Your task to perform on an android device: check android version Image 0: 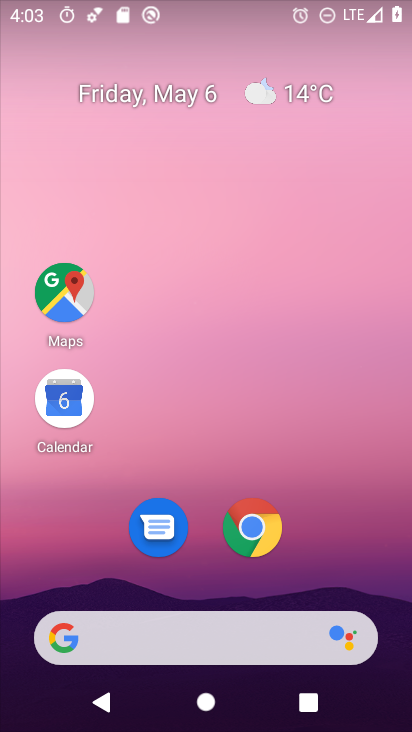
Step 0: drag from (349, 583) to (280, 35)
Your task to perform on an android device: check android version Image 1: 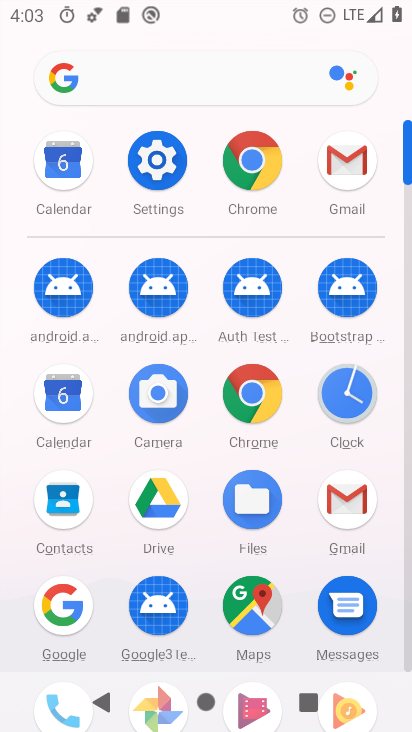
Step 1: click (149, 161)
Your task to perform on an android device: check android version Image 2: 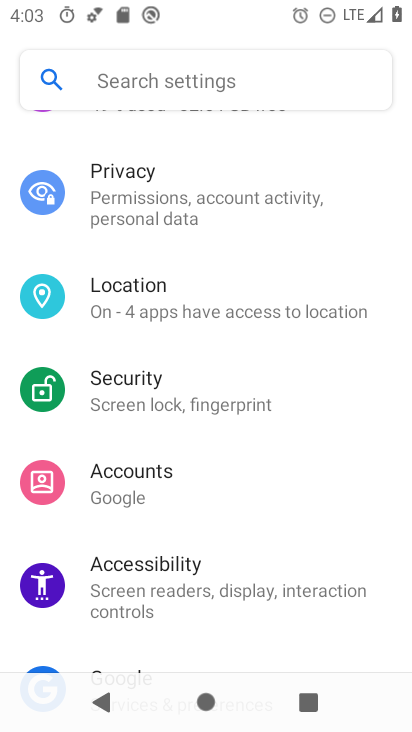
Step 2: drag from (189, 601) to (279, 49)
Your task to perform on an android device: check android version Image 3: 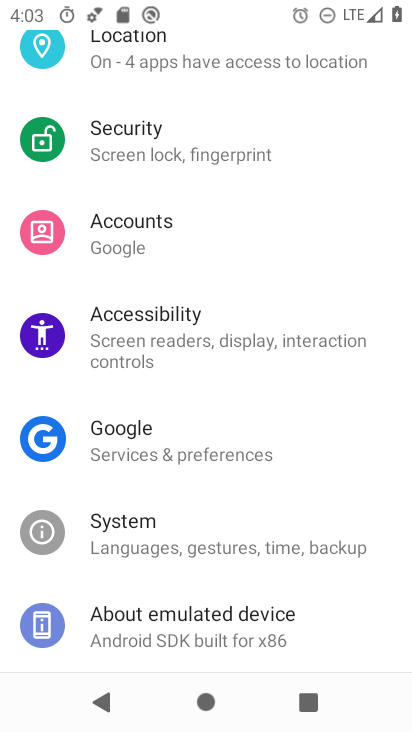
Step 3: click (160, 633)
Your task to perform on an android device: check android version Image 4: 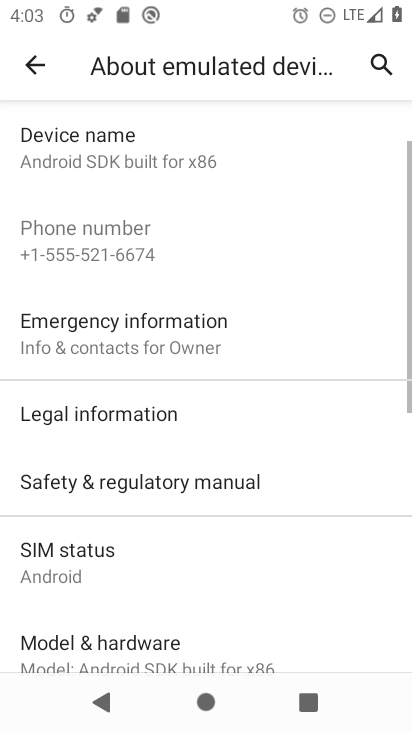
Step 4: drag from (159, 597) to (219, 103)
Your task to perform on an android device: check android version Image 5: 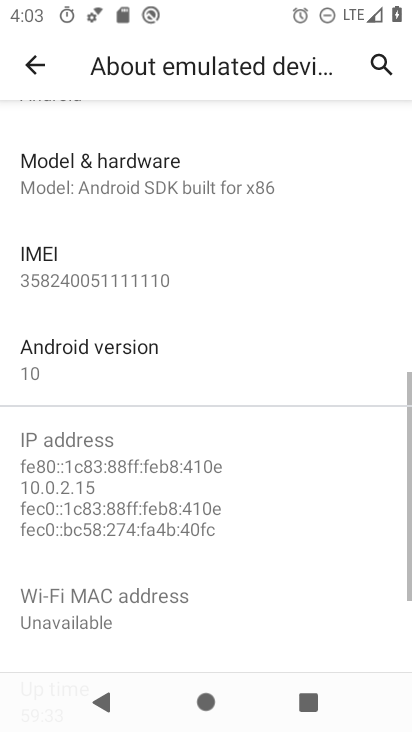
Step 5: click (70, 353)
Your task to perform on an android device: check android version Image 6: 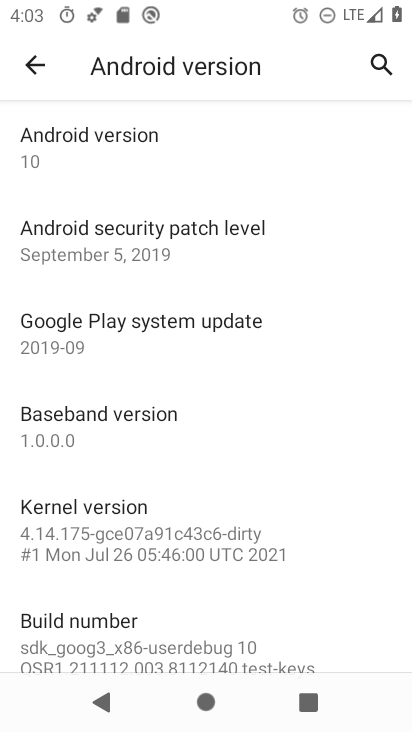
Step 6: task complete